Your task to perform on an android device: When is my next meeting? Image 0: 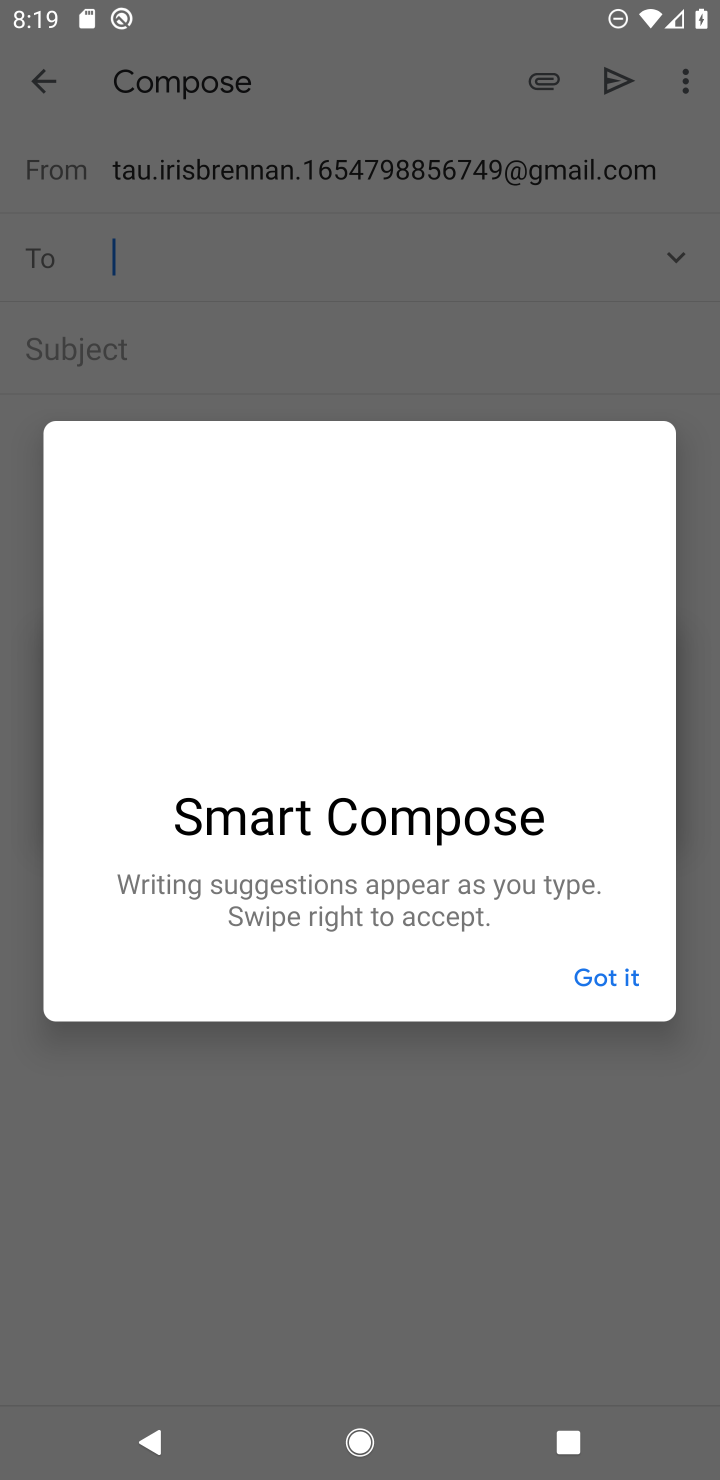
Step 0: press home button
Your task to perform on an android device: When is my next meeting? Image 1: 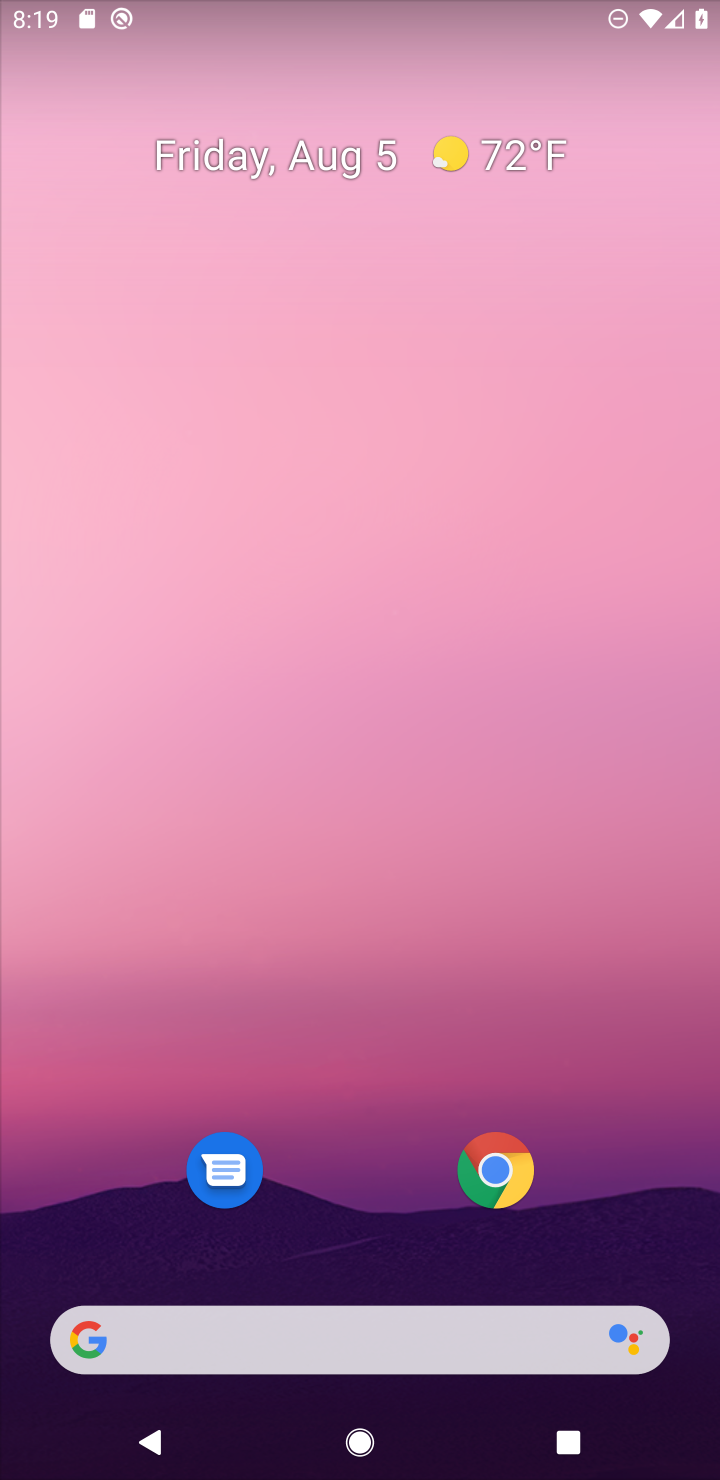
Step 1: drag from (641, 1228) to (607, 80)
Your task to perform on an android device: When is my next meeting? Image 2: 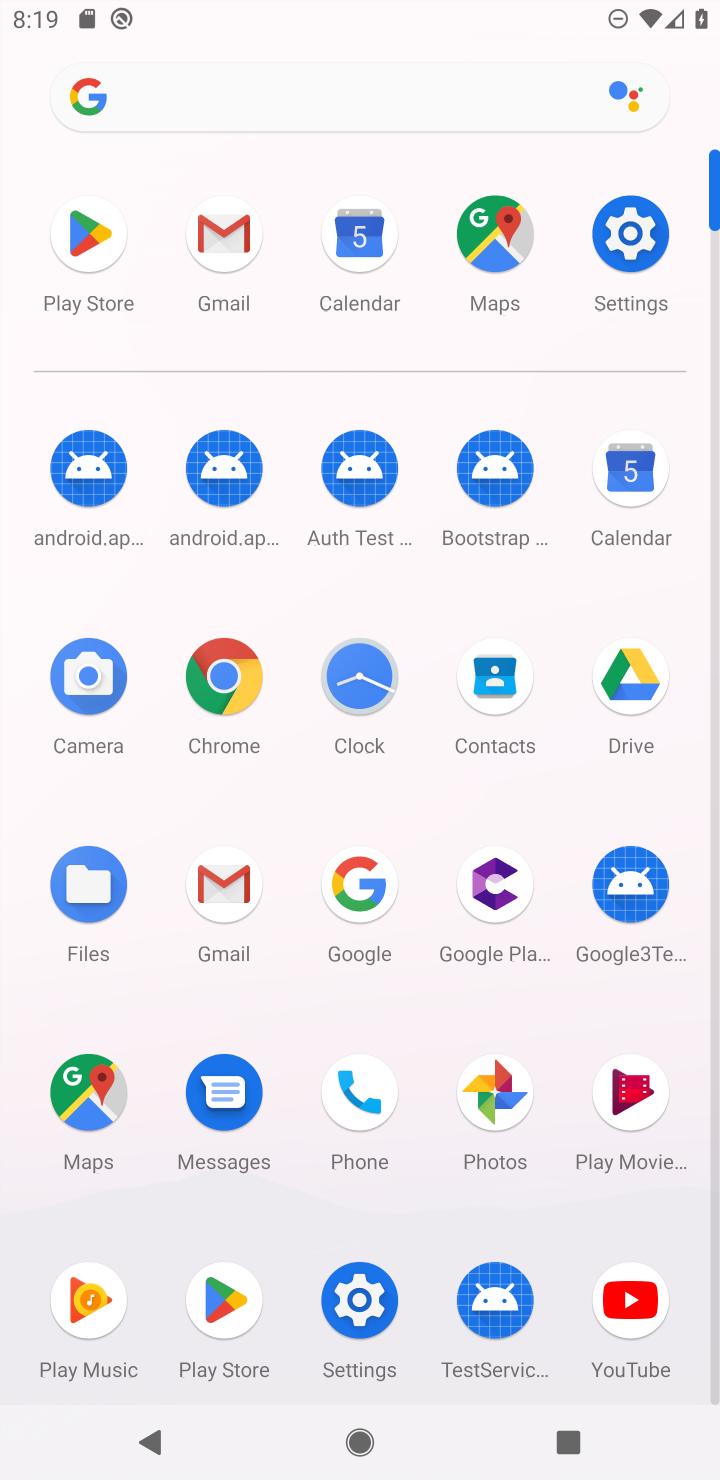
Step 2: click (618, 470)
Your task to perform on an android device: When is my next meeting? Image 3: 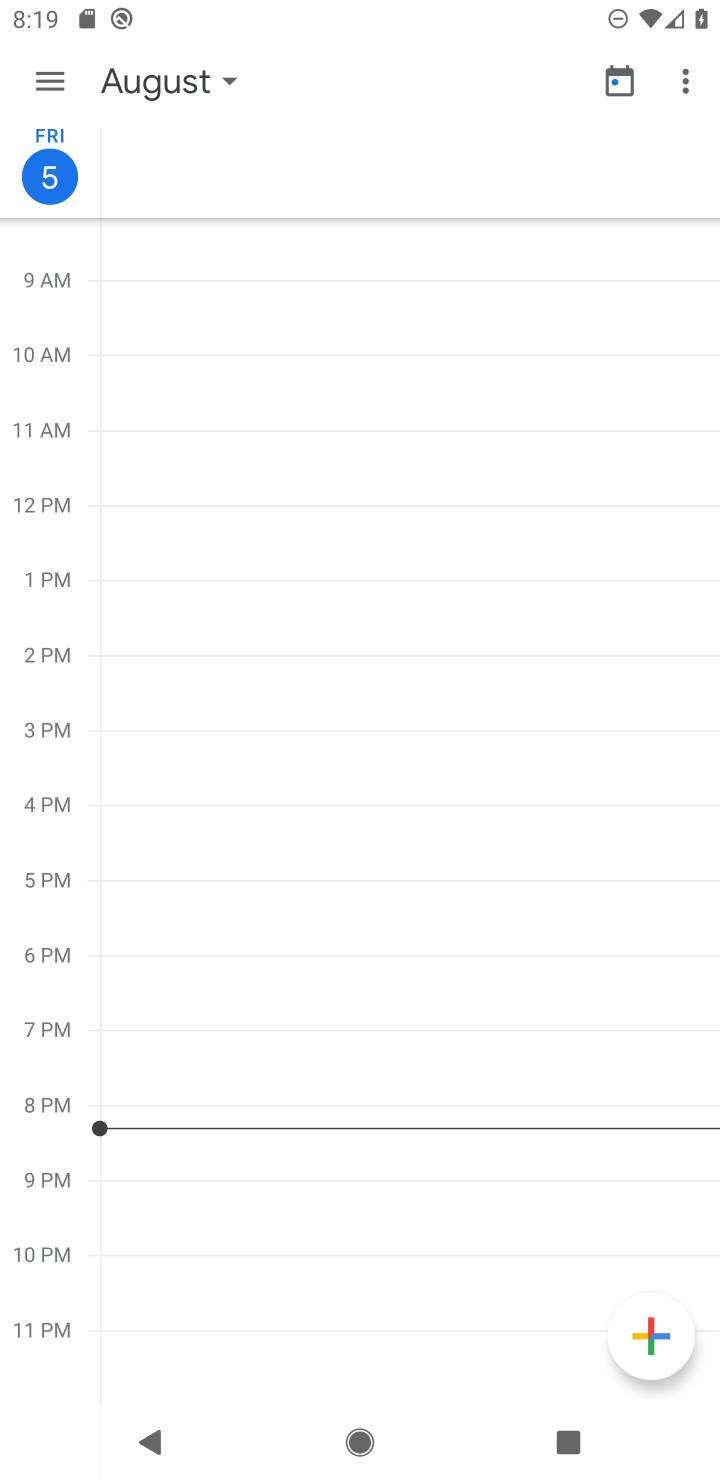
Step 3: click (49, 72)
Your task to perform on an android device: When is my next meeting? Image 4: 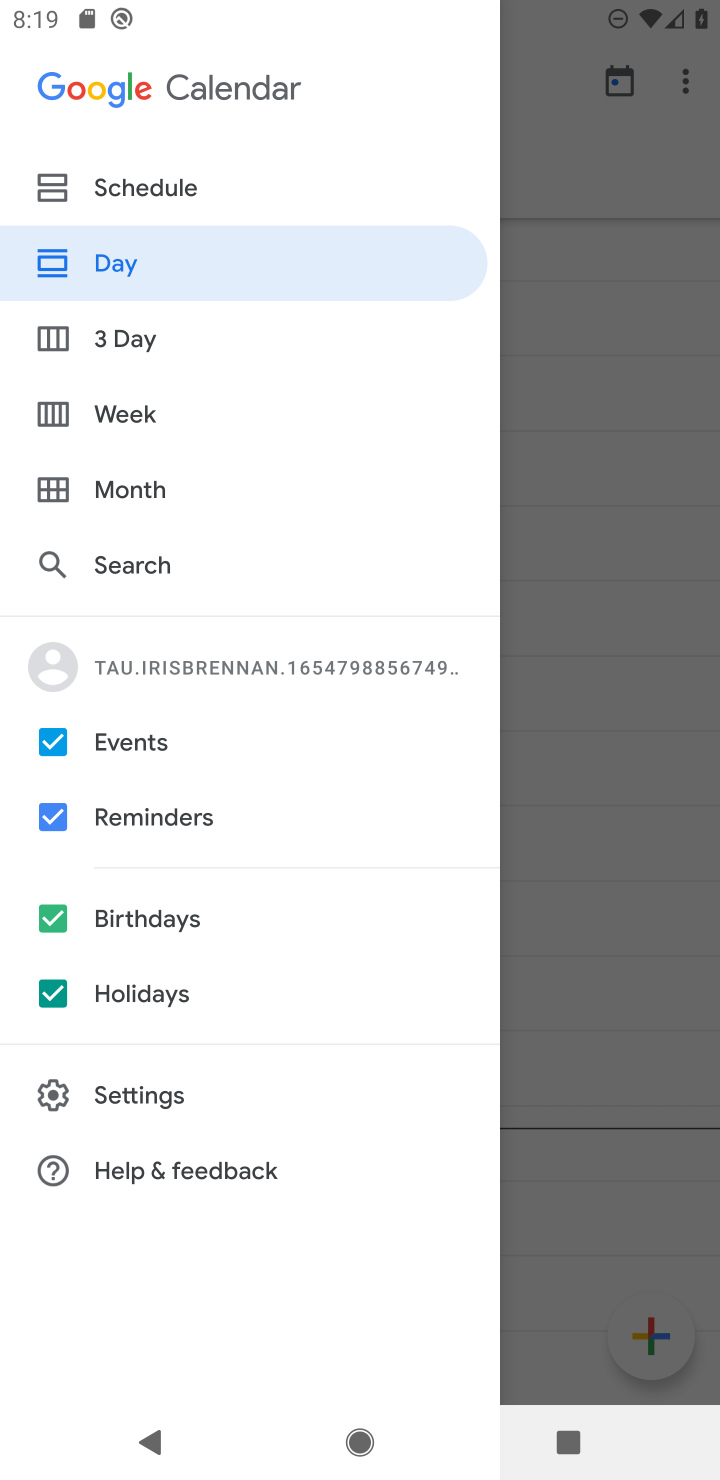
Step 4: click (138, 184)
Your task to perform on an android device: When is my next meeting? Image 5: 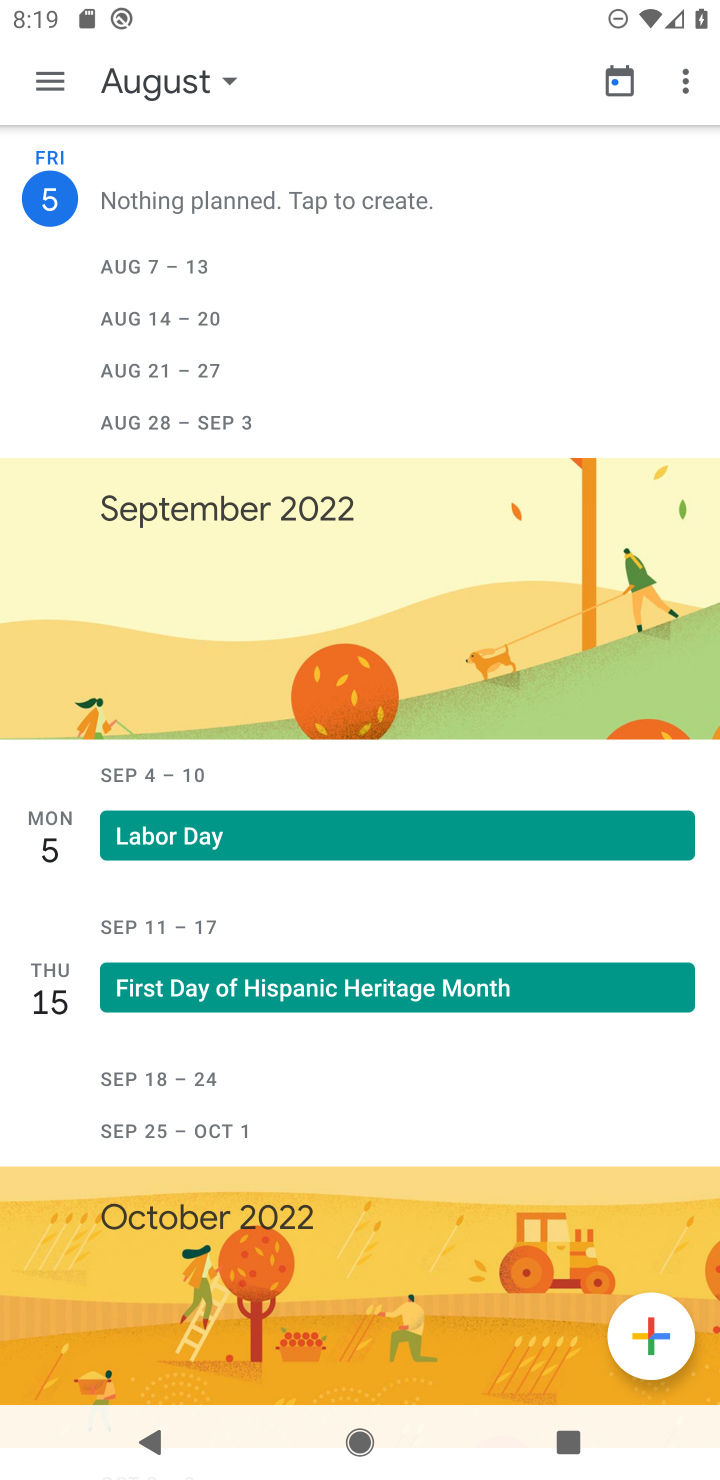
Step 5: task complete